Your task to perform on an android device: visit the assistant section in the google photos Image 0: 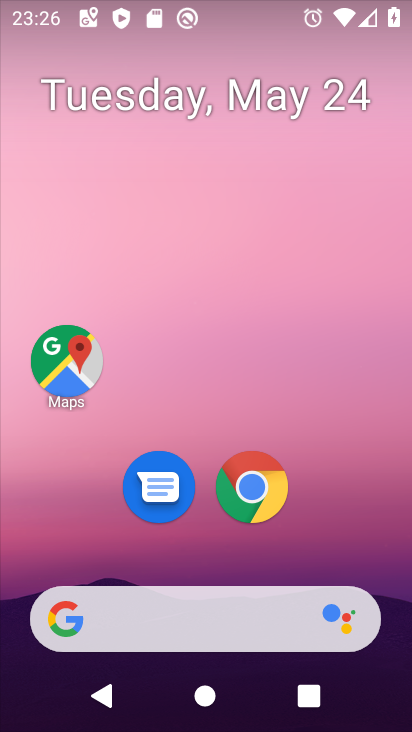
Step 0: drag from (224, 557) to (242, 121)
Your task to perform on an android device: visit the assistant section in the google photos Image 1: 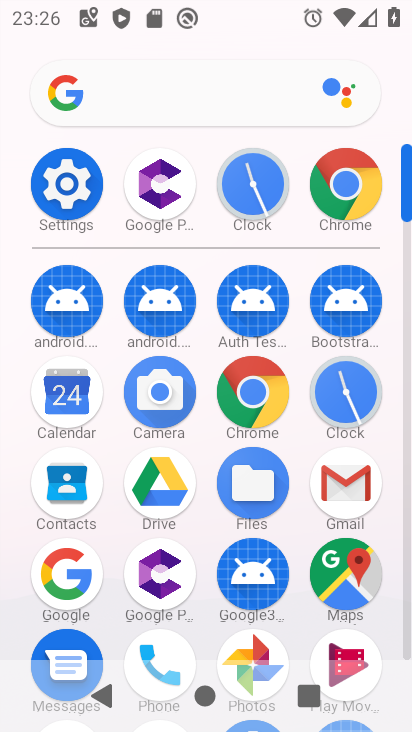
Step 1: click (235, 639)
Your task to perform on an android device: visit the assistant section in the google photos Image 2: 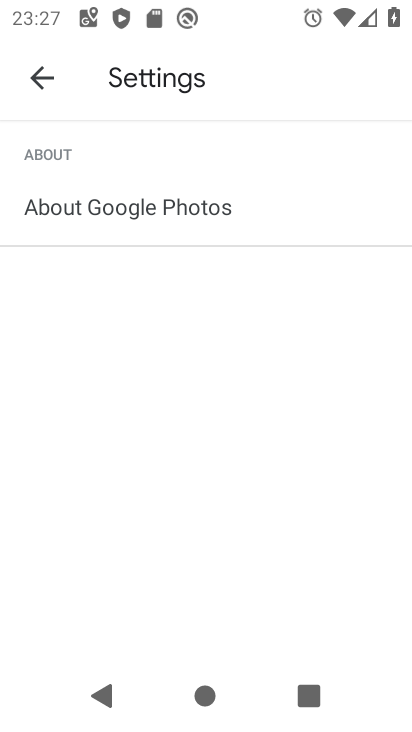
Step 2: press home button
Your task to perform on an android device: visit the assistant section in the google photos Image 3: 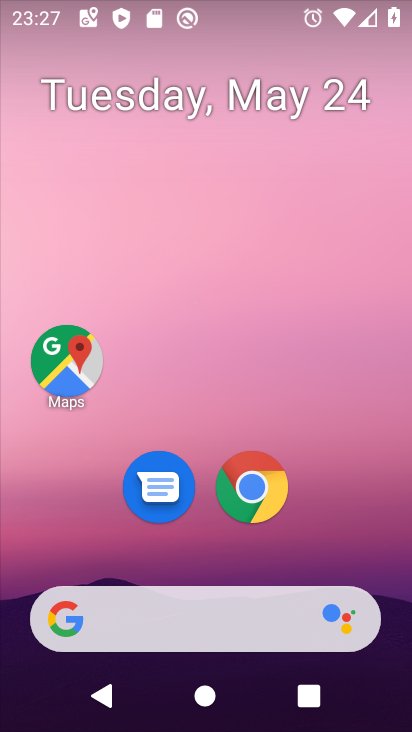
Step 3: drag from (200, 535) to (274, 25)
Your task to perform on an android device: visit the assistant section in the google photos Image 4: 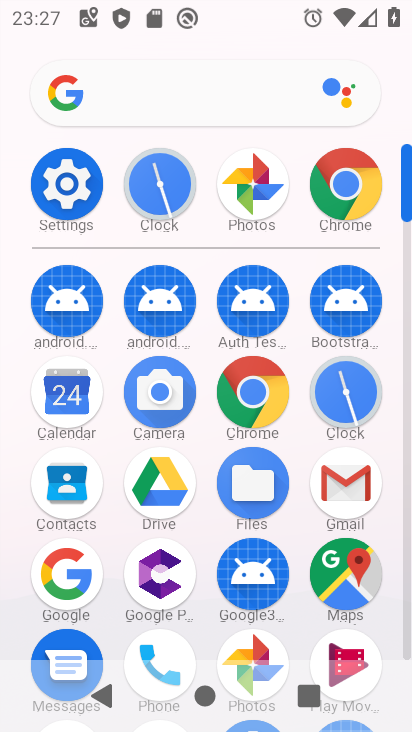
Step 4: click (239, 649)
Your task to perform on an android device: visit the assistant section in the google photos Image 5: 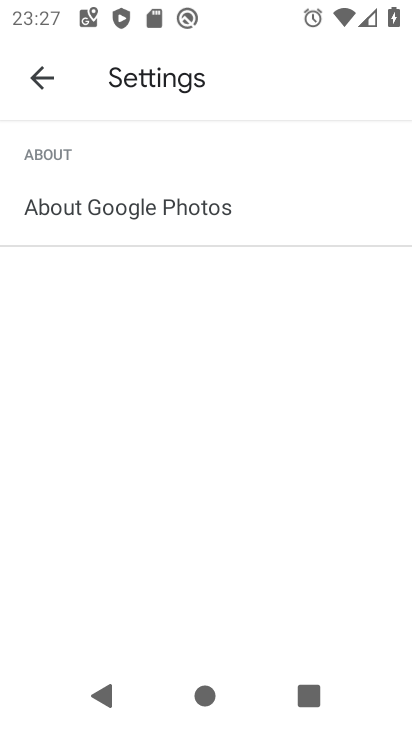
Step 5: click (31, 62)
Your task to perform on an android device: visit the assistant section in the google photos Image 6: 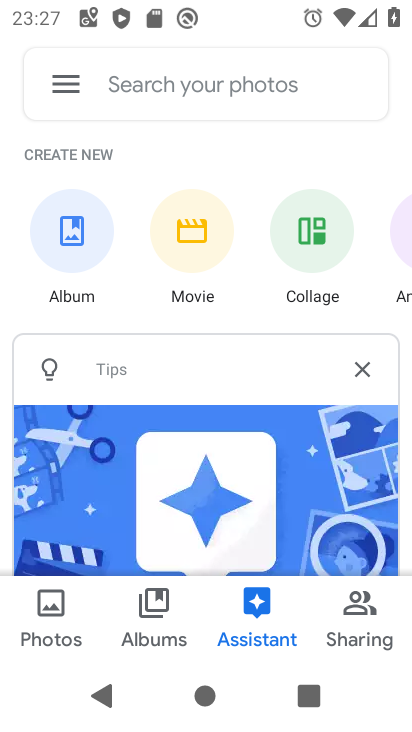
Step 6: task complete